Your task to perform on an android device: set an alarm Image 0: 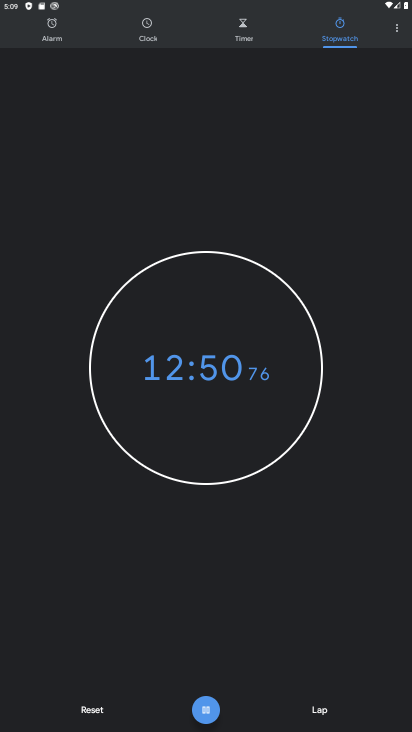
Step 0: click (48, 20)
Your task to perform on an android device: set an alarm Image 1: 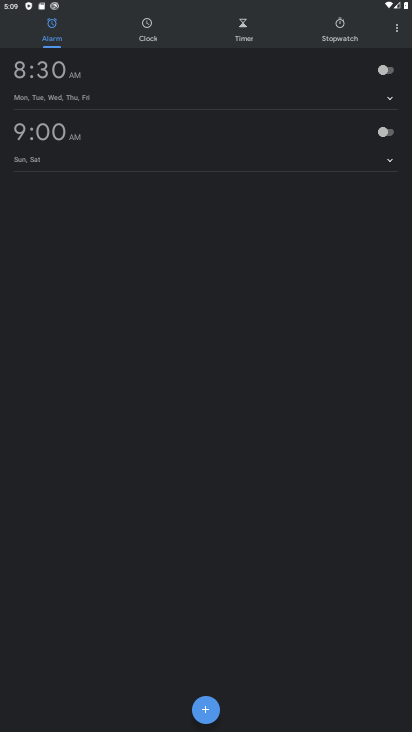
Step 1: click (394, 63)
Your task to perform on an android device: set an alarm Image 2: 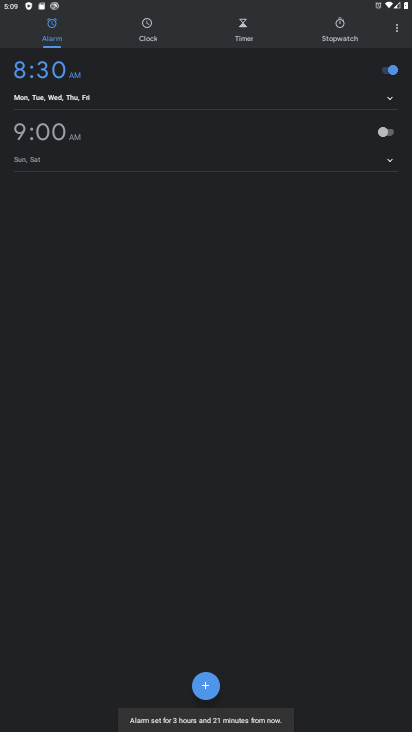
Step 2: task complete